Your task to perform on an android device: Show me popular games on the Play Store Image 0: 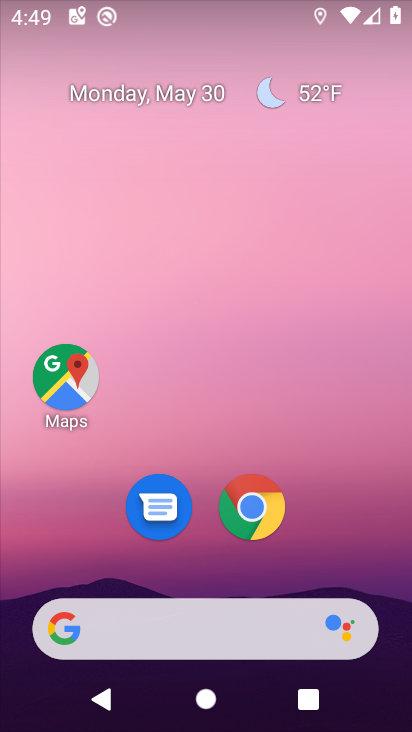
Step 0: press home button
Your task to perform on an android device: Show me popular games on the Play Store Image 1: 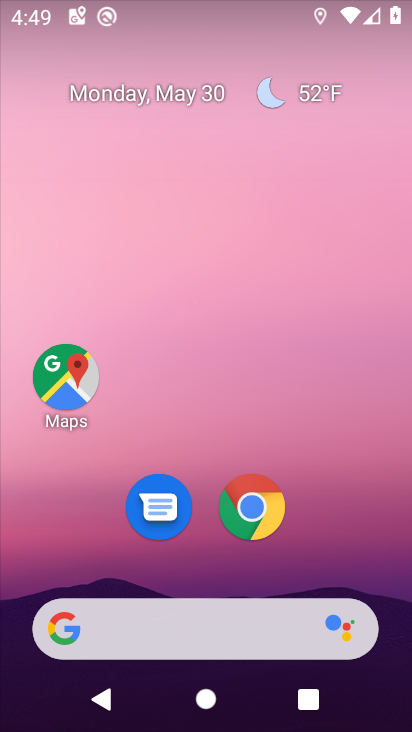
Step 1: drag from (306, 531) to (315, 155)
Your task to perform on an android device: Show me popular games on the Play Store Image 2: 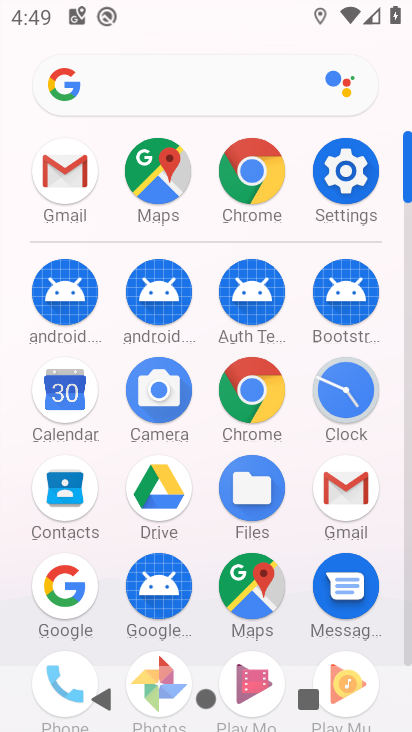
Step 2: click (397, 640)
Your task to perform on an android device: Show me popular games on the Play Store Image 3: 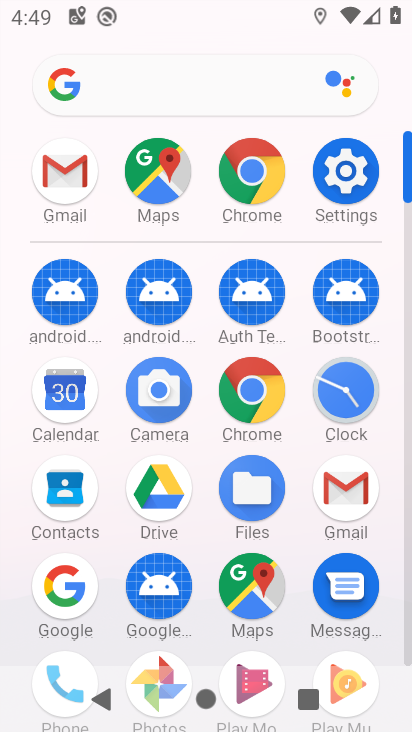
Step 3: click (408, 642)
Your task to perform on an android device: Show me popular games on the Play Store Image 4: 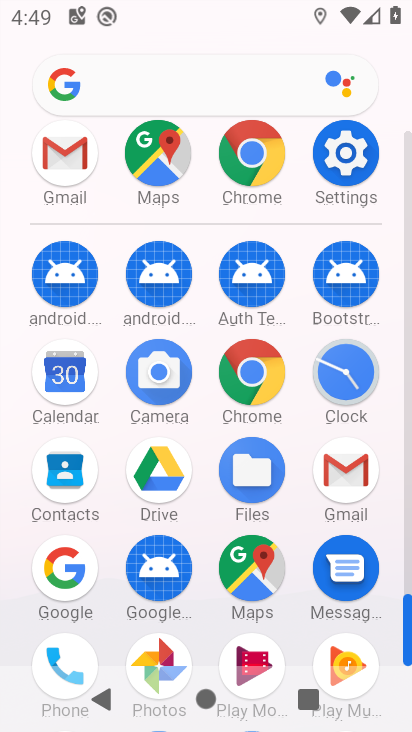
Step 4: click (408, 642)
Your task to perform on an android device: Show me popular games on the Play Store Image 5: 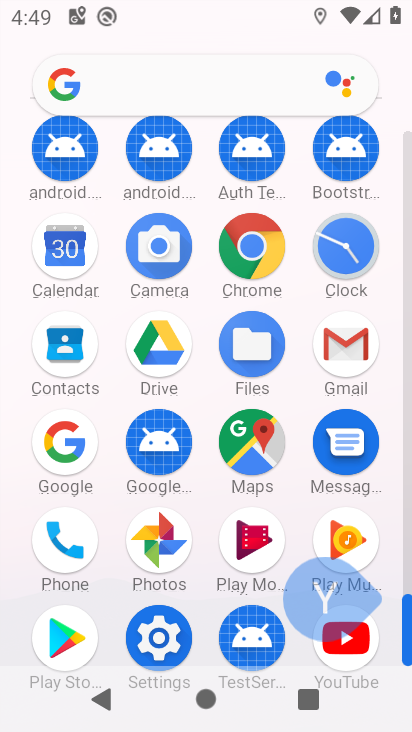
Step 5: click (408, 642)
Your task to perform on an android device: Show me popular games on the Play Store Image 6: 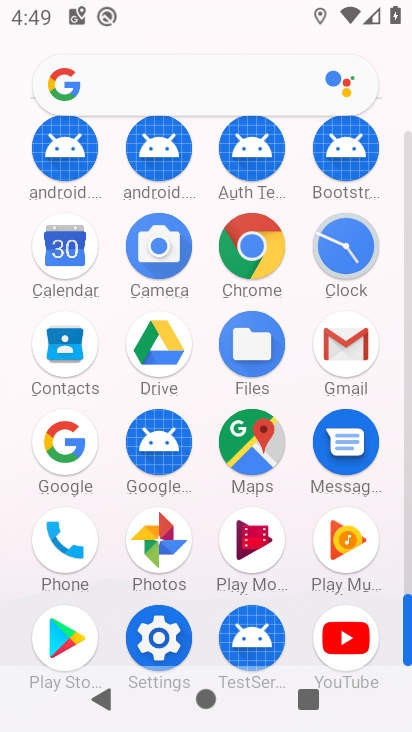
Step 6: click (65, 633)
Your task to perform on an android device: Show me popular games on the Play Store Image 7: 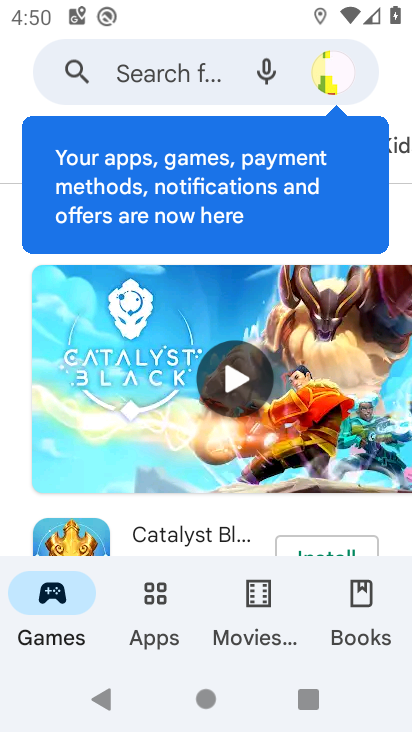
Step 7: click (163, 70)
Your task to perform on an android device: Show me popular games on the Play Store Image 8: 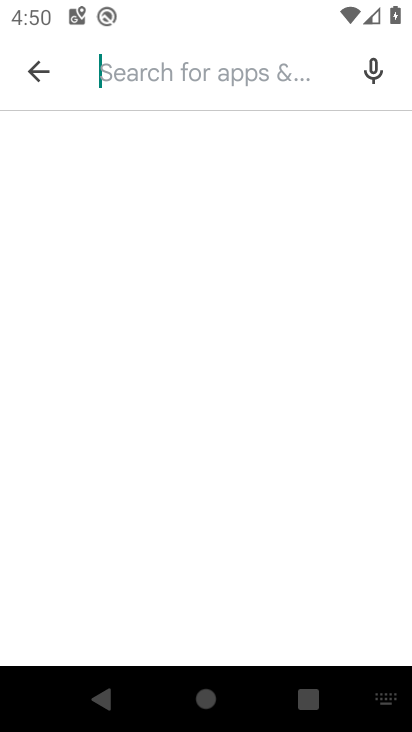
Step 8: type " popular games"
Your task to perform on an android device: Show me popular games on the Play Store Image 9: 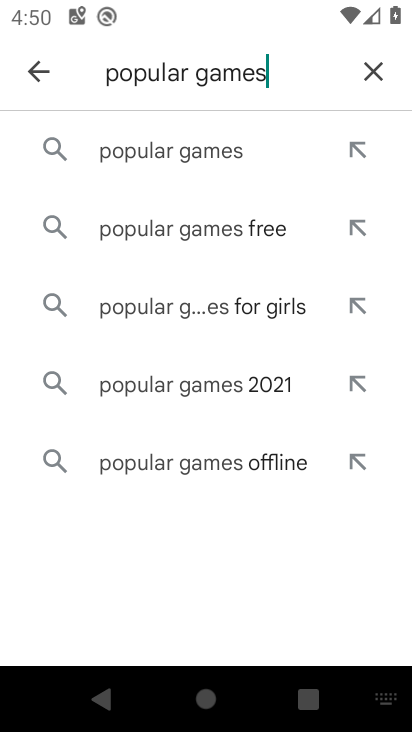
Step 9: click (206, 148)
Your task to perform on an android device: Show me popular games on the Play Store Image 10: 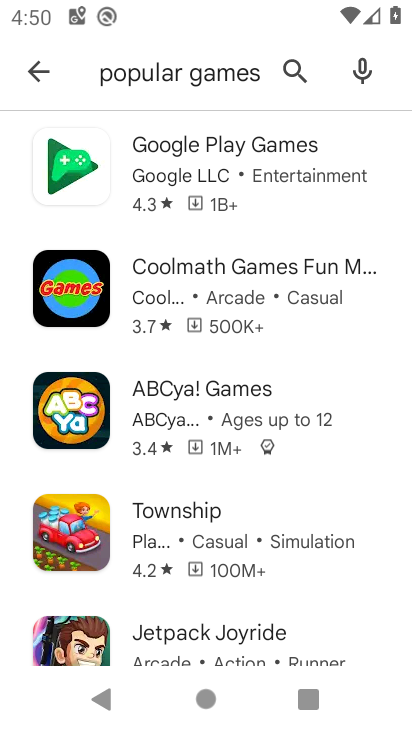
Step 10: task complete